Your task to perform on an android device: Go to accessibility settings Image 0: 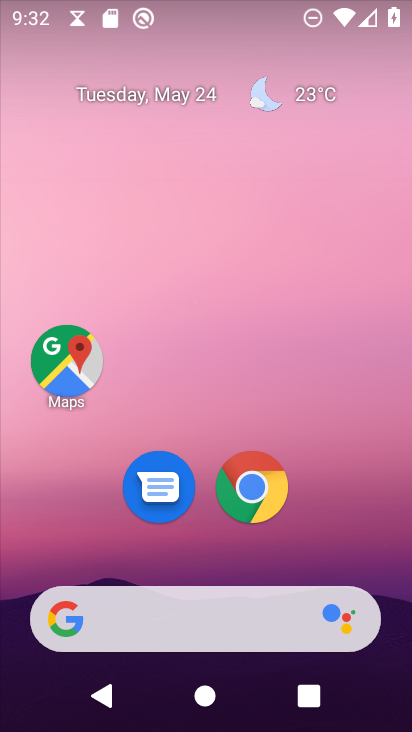
Step 0: drag from (0, 646) to (282, 115)
Your task to perform on an android device: Go to accessibility settings Image 1: 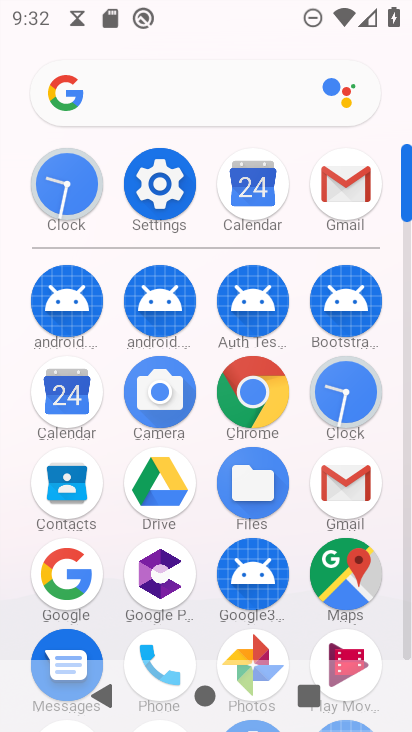
Step 1: click (188, 176)
Your task to perform on an android device: Go to accessibility settings Image 2: 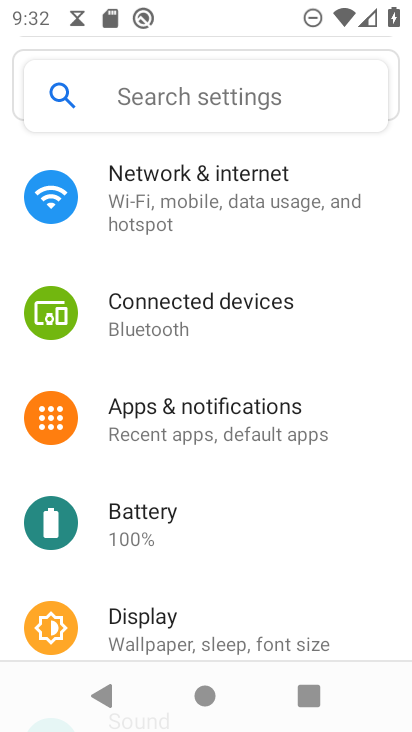
Step 2: drag from (52, 482) to (233, 134)
Your task to perform on an android device: Go to accessibility settings Image 3: 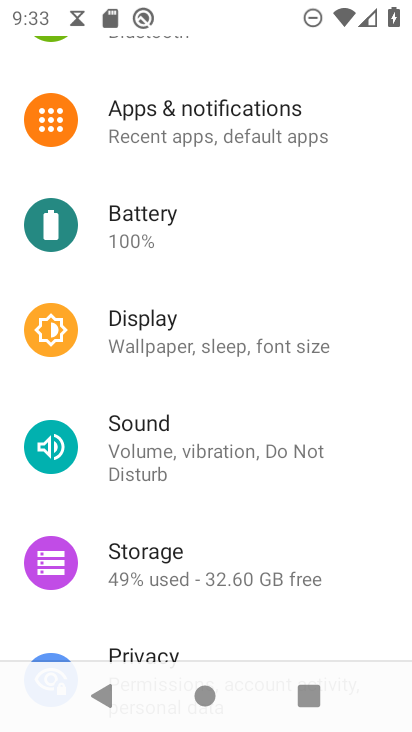
Step 3: drag from (18, 571) to (252, 199)
Your task to perform on an android device: Go to accessibility settings Image 4: 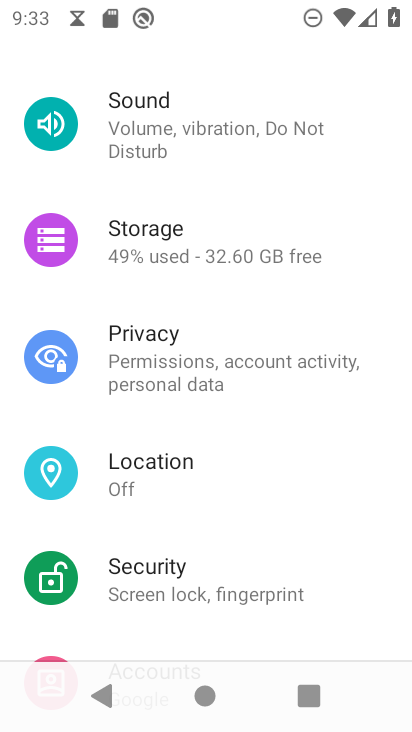
Step 4: drag from (27, 557) to (272, 142)
Your task to perform on an android device: Go to accessibility settings Image 5: 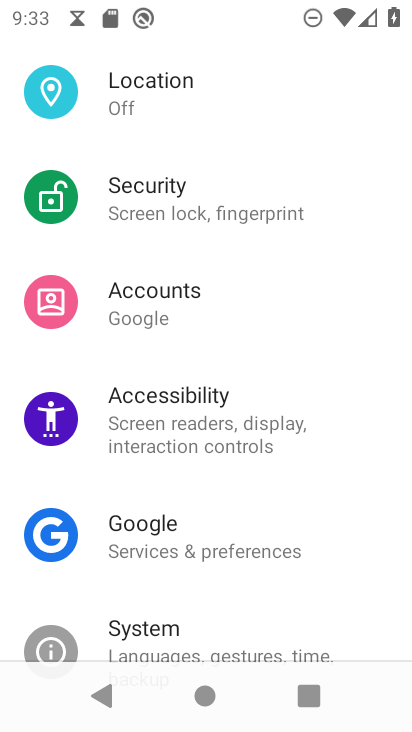
Step 5: click (199, 400)
Your task to perform on an android device: Go to accessibility settings Image 6: 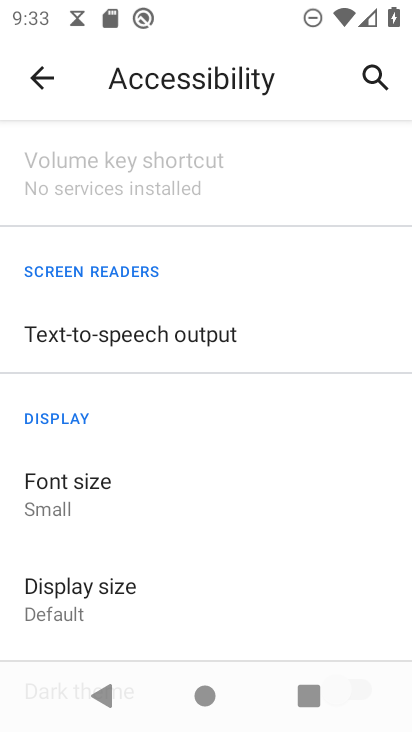
Step 6: task complete